Your task to perform on an android device: delete browsing data in the chrome app Image 0: 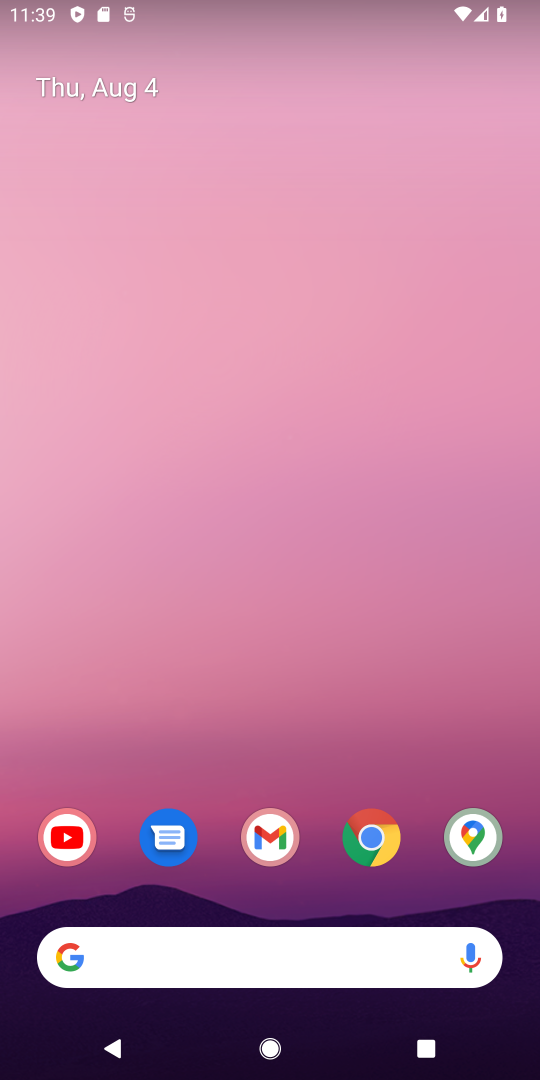
Step 0: click (368, 827)
Your task to perform on an android device: delete browsing data in the chrome app Image 1: 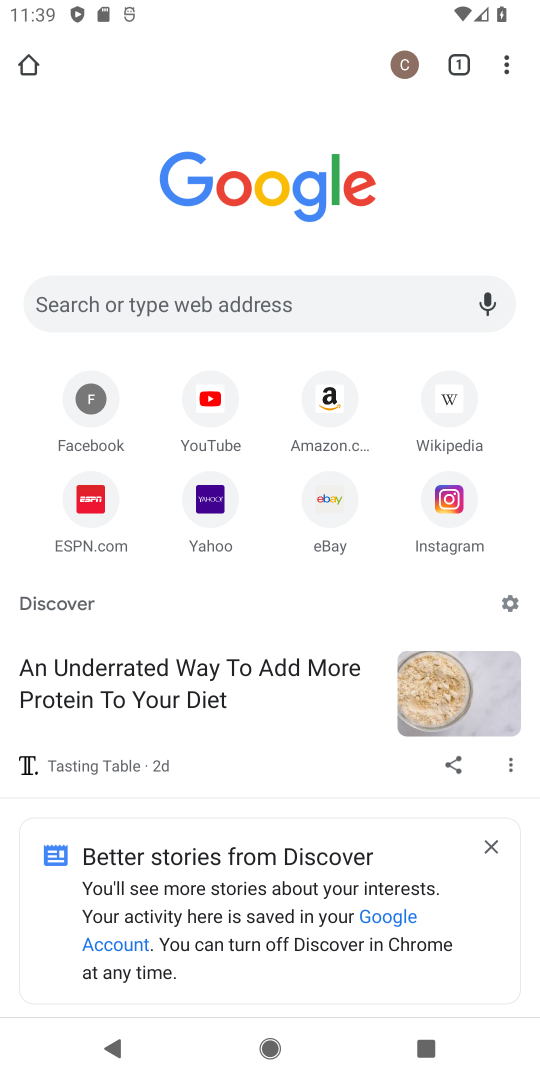
Step 1: click (510, 63)
Your task to perform on an android device: delete browsing data in the chrome app Image 2: 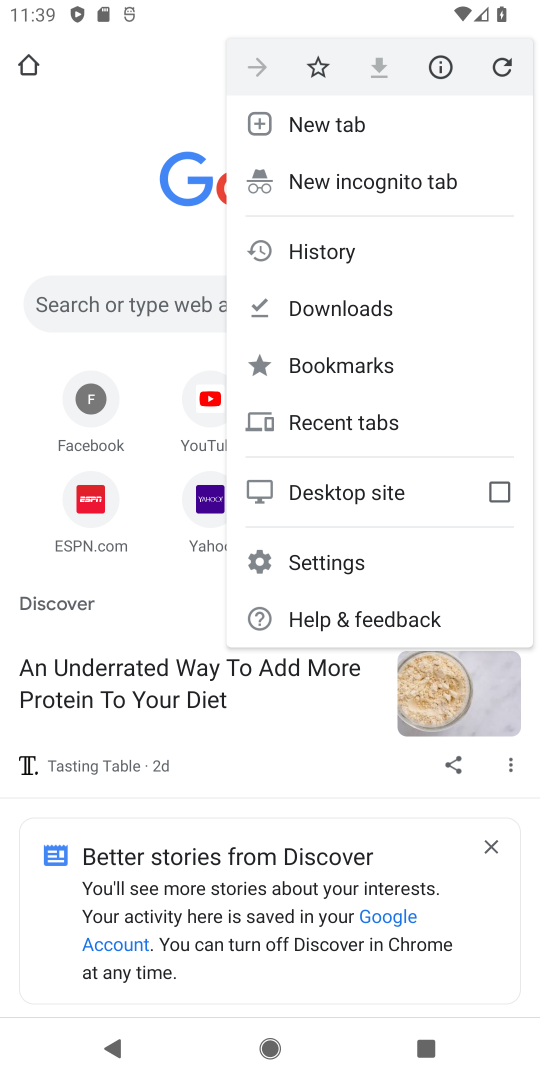
Step 2: click (305, 259)
Your task to perform on an android device: delete browsing data in the chrome app Image 3: 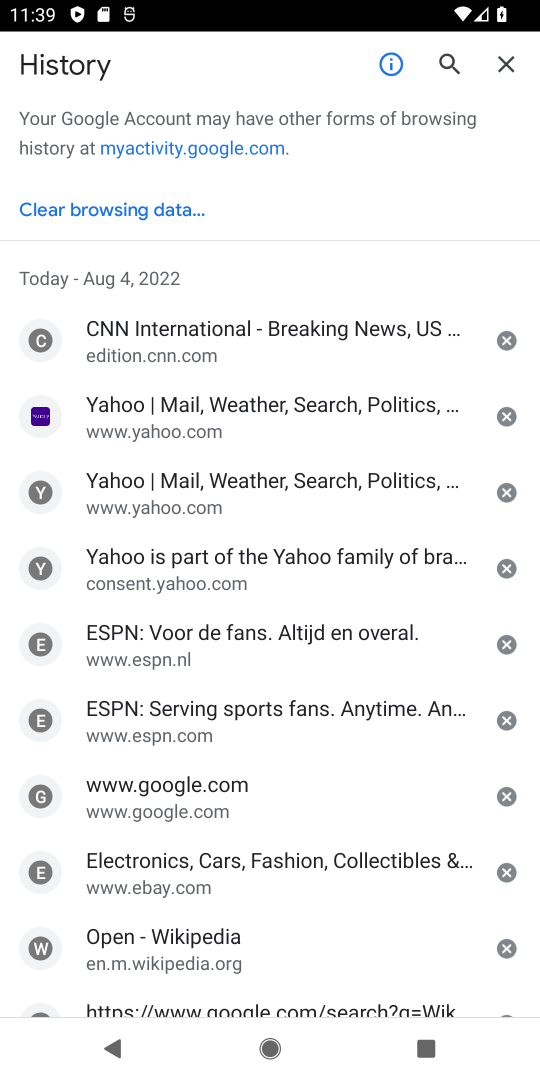
Step 3: click (118, 201)
Your task to perform on an android device: delete browsing data in the chrome app Image 4: 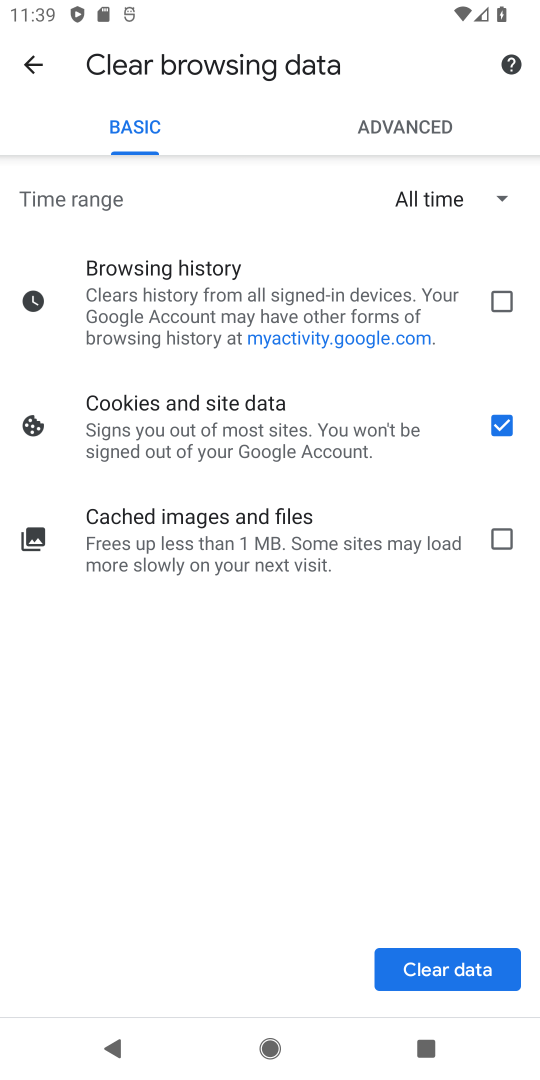
Step 4: click (510, 300)
Your task to perform on an android device: delete browsing data in the chrome app Image 5: 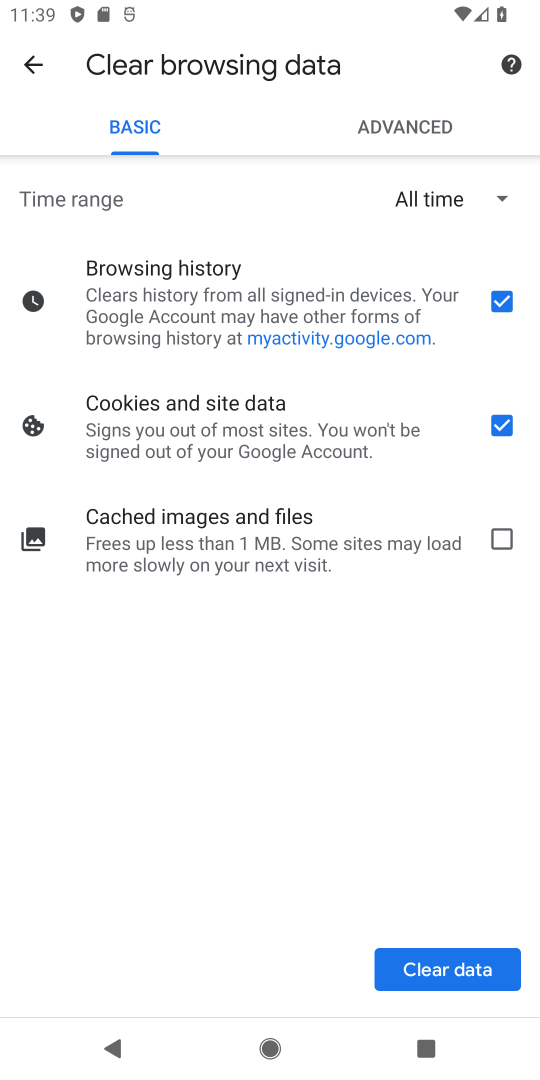
Step 5: click (498, 531)
Your task to perform on an android device: delete browsing data in the chrome app Image 6: 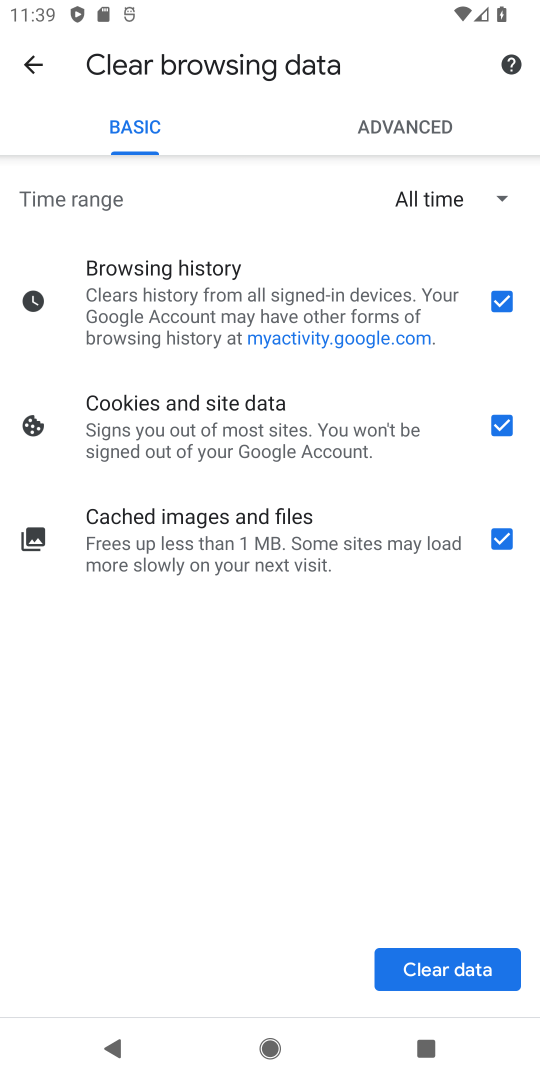
Step 6: click (448, 970)
Your task to perform on an android device: delete browsing data in the chrome app Image 7: 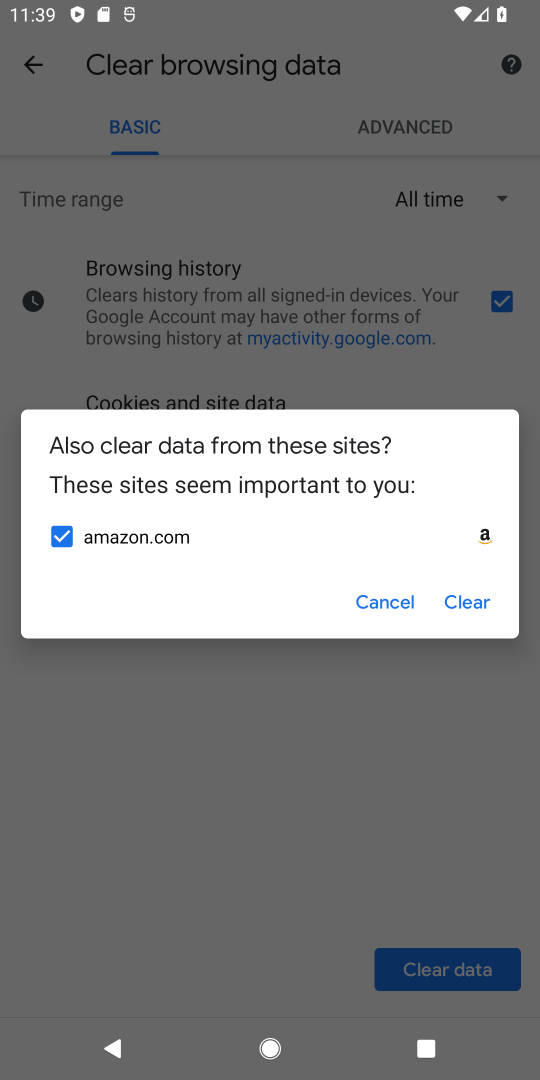
Step 7: click (483, 597)
Your task to perform on an android device: delete browsing data in the chrome app Image 8: 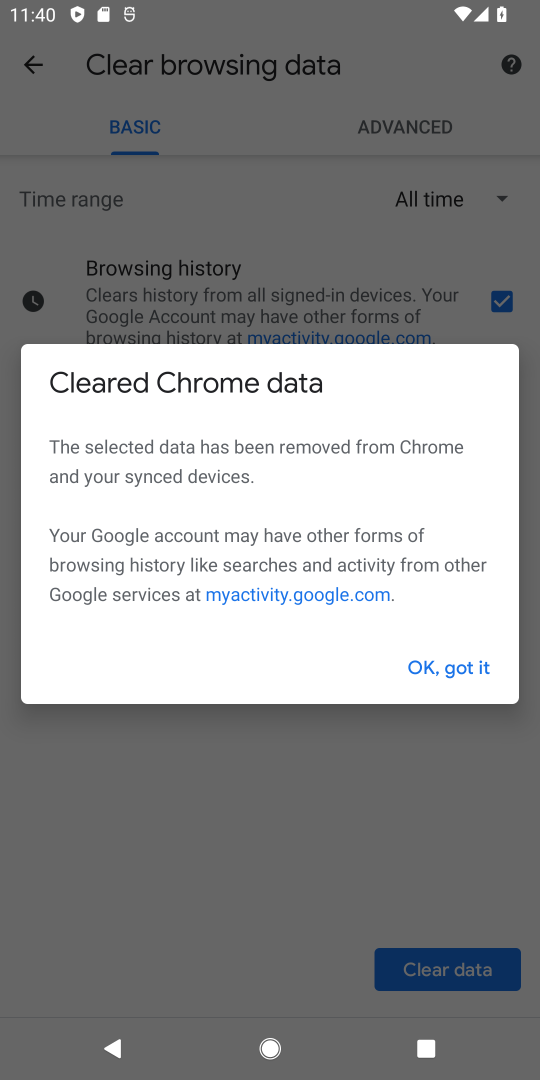
Step 8: click (433, 671)
Your task to perform on an android device: delete browsing data in the chrome app Image 9: 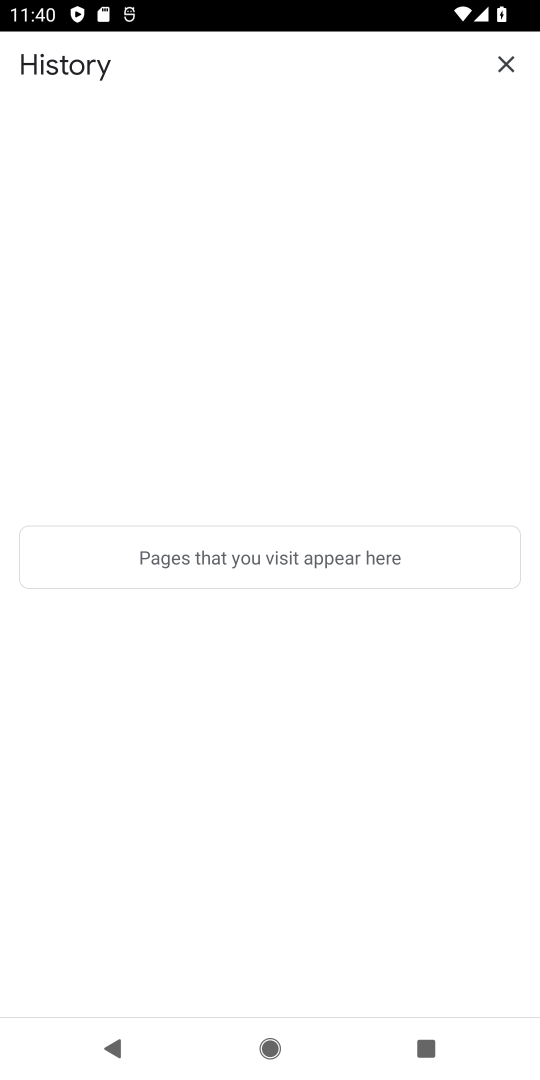
Step 9: task complete